Your task to perform on an android device: see sites visited before in the chrome app Image 0: 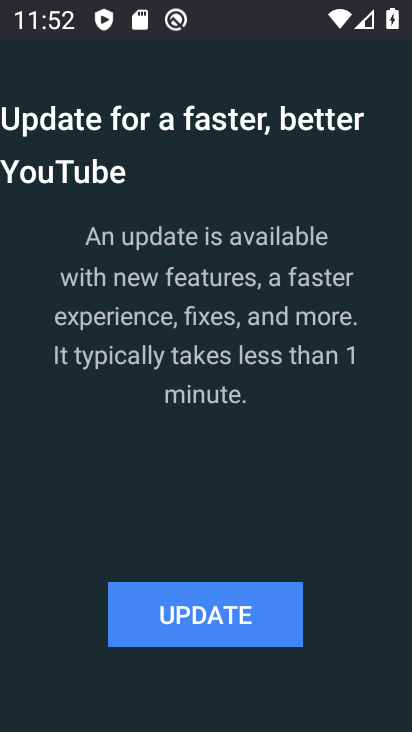
Step 0: drag from (32, 252) to (301, 298)
Your task to perform on an android device: see sites visited before in the chrome app Image 1: 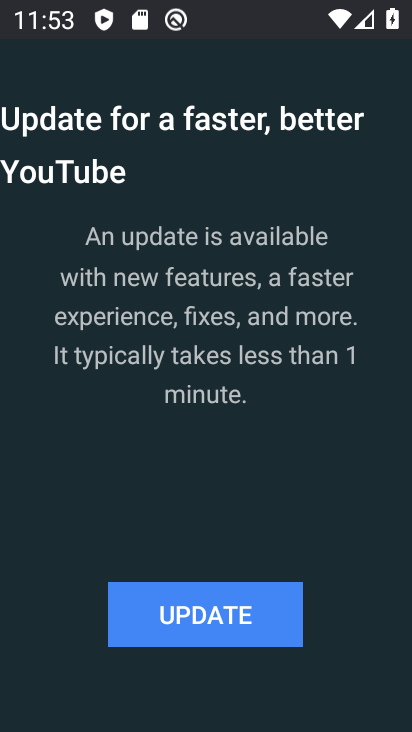
Step 1: press home button
Your task to perform on an android device: see sites visited before in the chrome app Image 2: 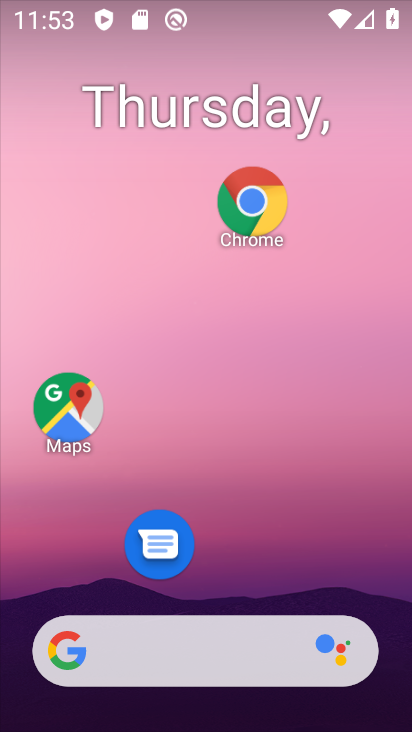
Step 2: drag from (218, 601) to (397, 70)
Your task to perform on an android device: see sites visited before in the chrome app Image 3: 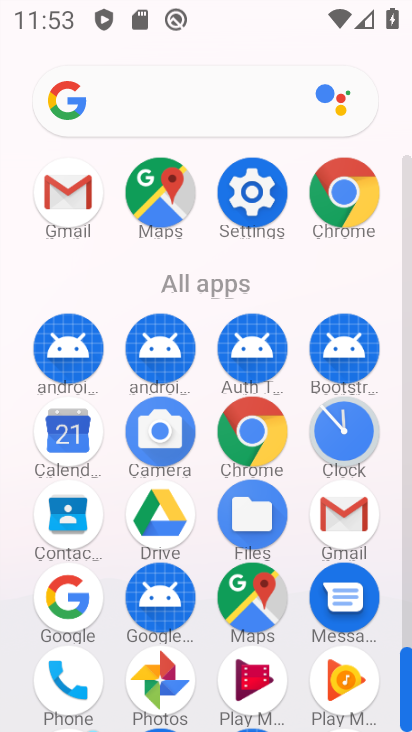
Step 3: click (244, 448)
Your task to perform on an android device: see sites visited before in the chrome app Image 4: 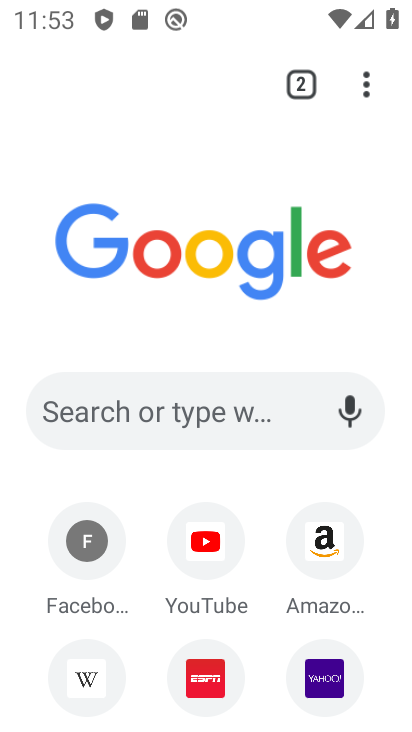
Step 4: task complete